Your task to perform on an android device: check data usage Image 0: 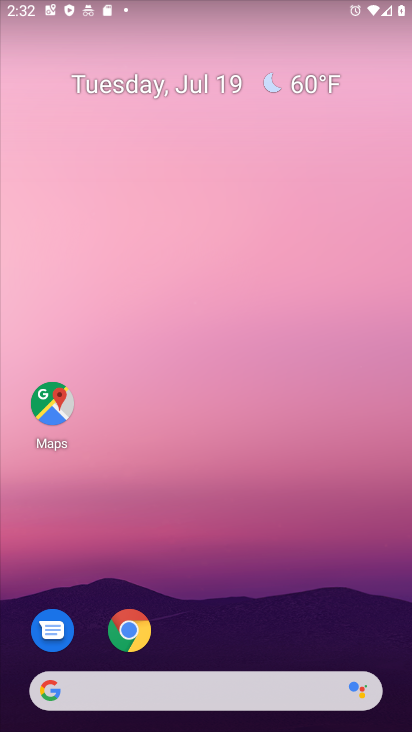
Step 0: click (177, 155)
Your task to perform on an android device: check data usage Image 1: 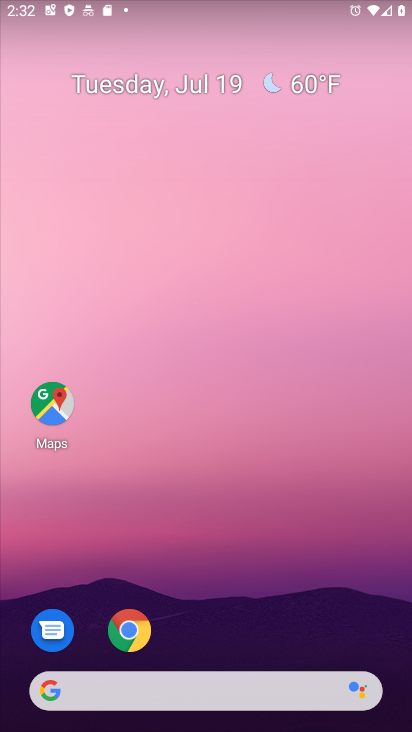
Step 1: drag from (246, 648) to (158, 85)
Your task to perform on an android device: check data usage Image 2: 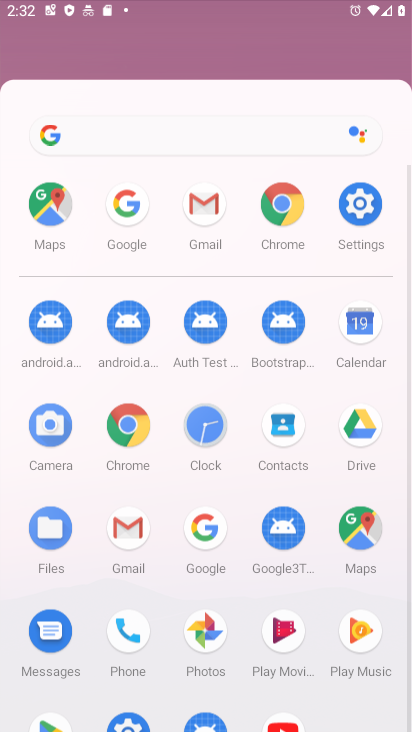
Step 2: drag from (240, 541) to (222, 69)
Your task to perform on an android device: check data usage Image 3: 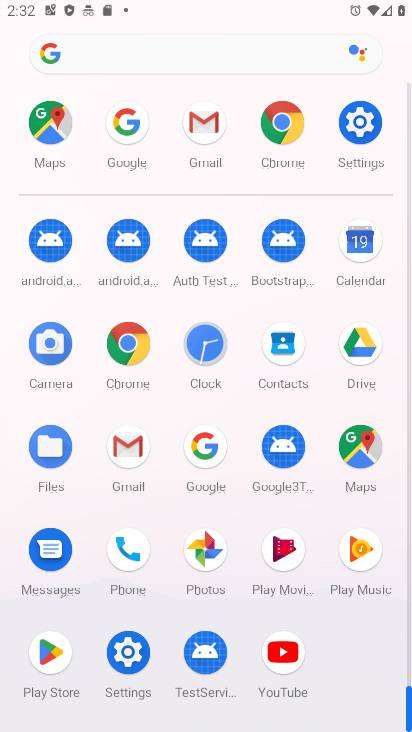
Step 3: click (358, 119)
Your task to perform on an android device: check data usage Image 4: 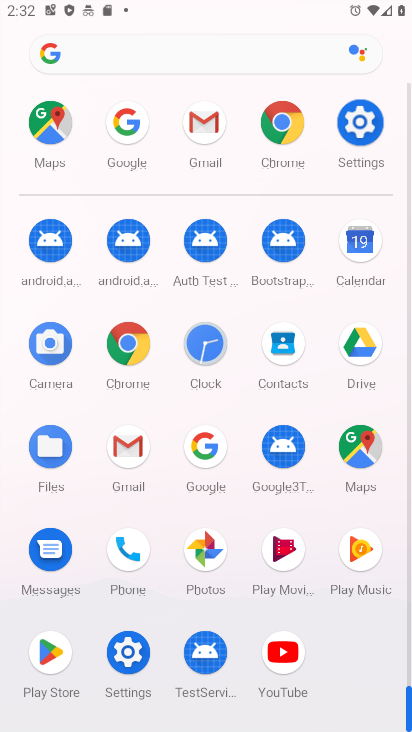
Step 4: click (358, 119)
Your task to perform on an android device: check data usage Image 5: 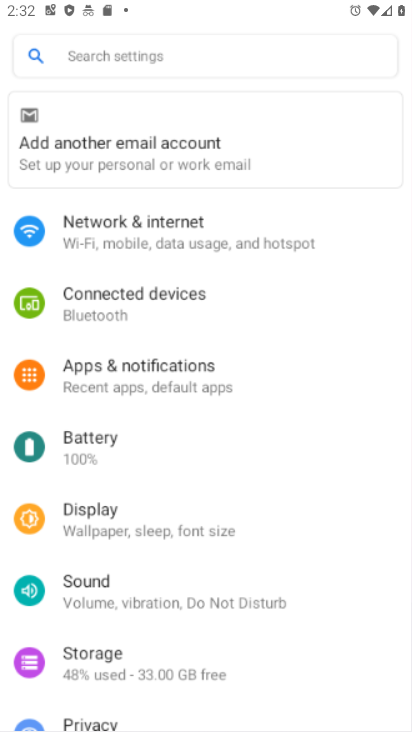
Step 5: click (358, 119)
Your task to perform on an android device: check data usage Image 6: 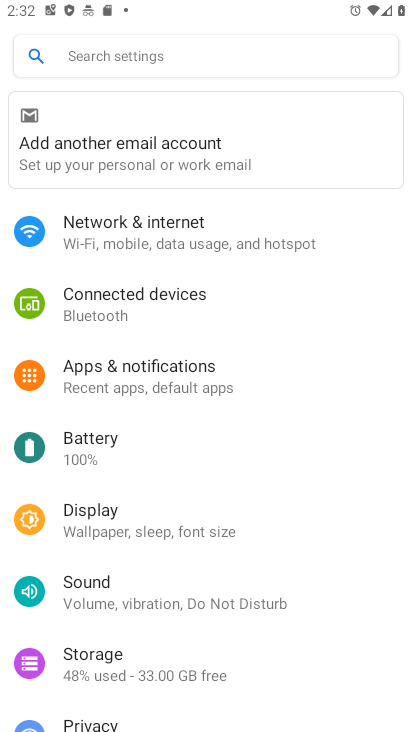
Step 6: drag from (127, 570) to (114, 228)
Your task to perform on an android device: check data usage Image 7: 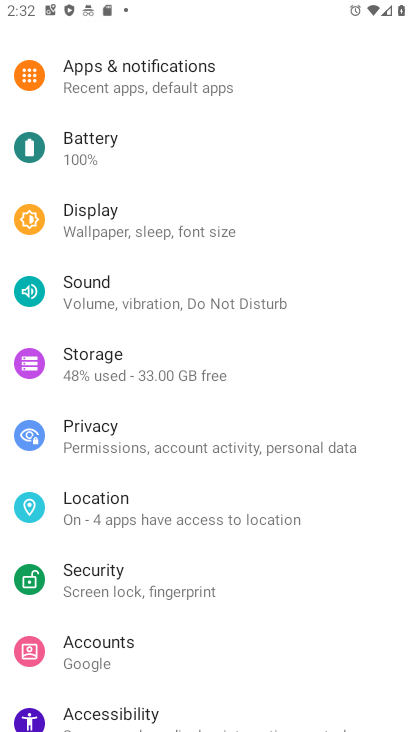
Step 7: drag from (175, 588) to (115, 220)
Your task to perform on an android device: check data usage Image 8: 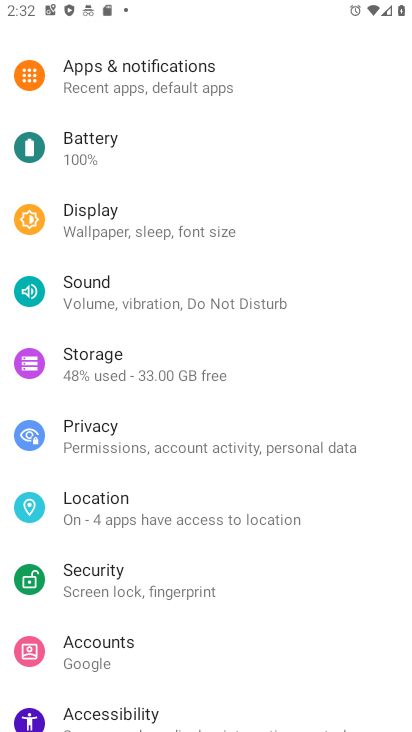
Step 8: drag from (190, 443) to (223, 209)
Your task to perform on an android device: check data usage Image 9: 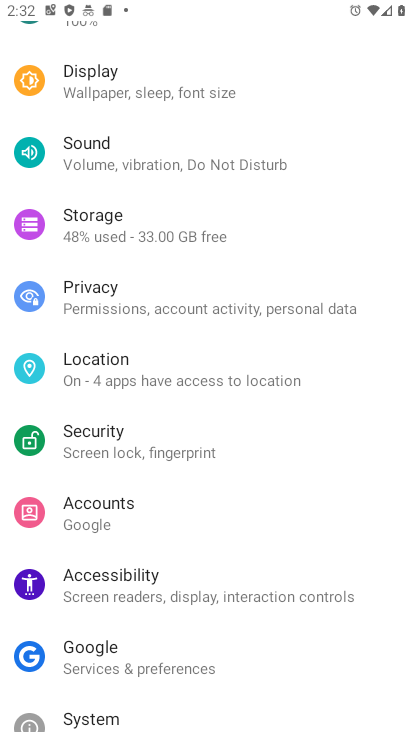
Step 9: drag from (104, 127) to (174, 532)
Your task to perform on an android device: check data usage Image 10: 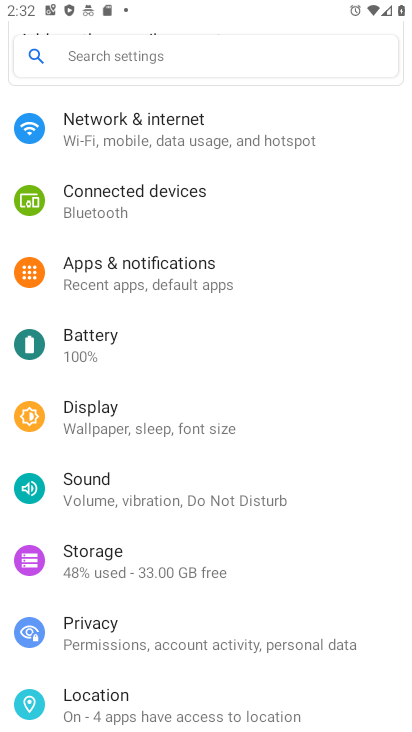
Step 10: drag from (165, 177) to (188, 408)
Your task to perform on an android device: check data usage Image 11: 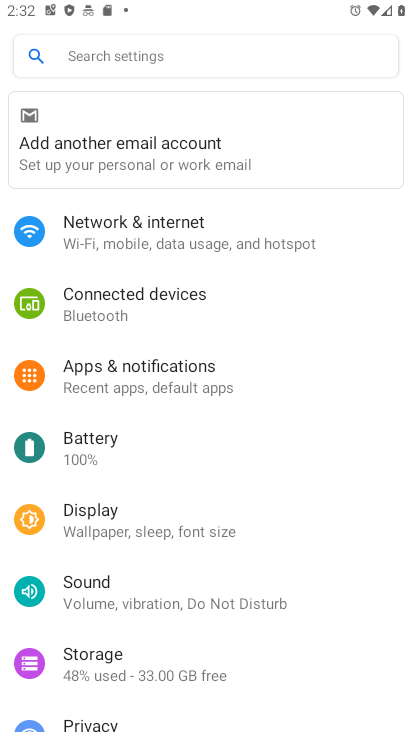
Step 11: drag from (118, 592) to (134, 304)
Your task to perform on an android device: check data usage Image 12: 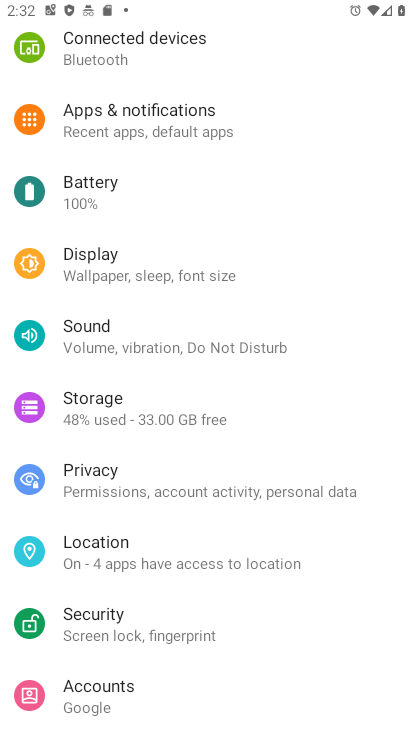
Step 12: drag from (160, 449) to (136, 248)
Your task to perform on an android device: check data usage Image 13: 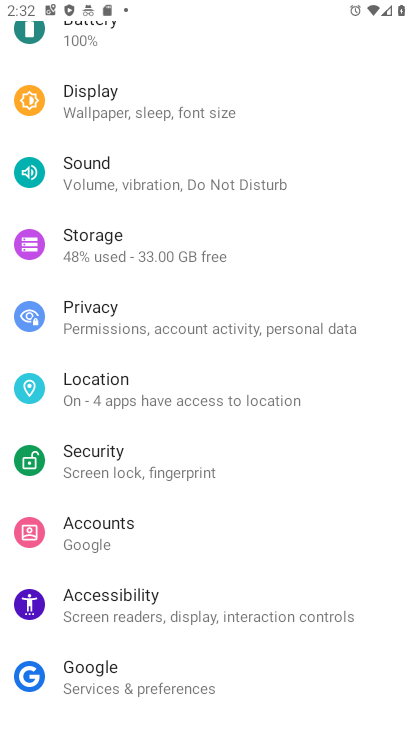
Step 13: drag from (115, 191) to (125, 394)
Your task to perform on an android device: check data usage Image 14: 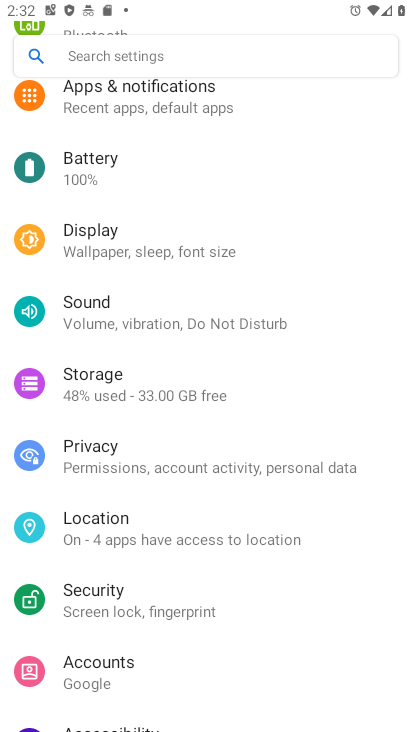
Step 14: drag from (126, 205) to (153, 354)
Your task to perform on an android device: check data usage Image 15: 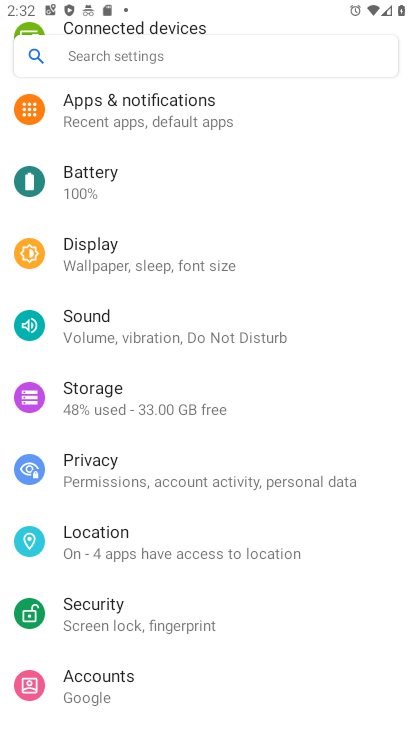
Step 15: drag from (164, 157) to (170, 333)
Your task to perform on an android device: check data usage Image 16: 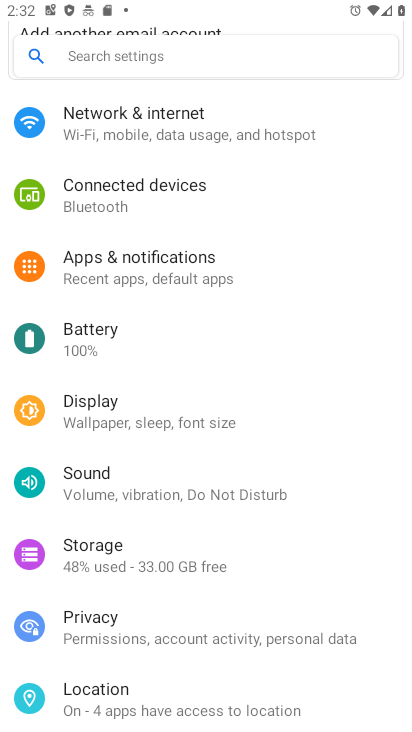
Step 16: click (138, 109)
Your task to perform on an android device: check data usage Image 17: 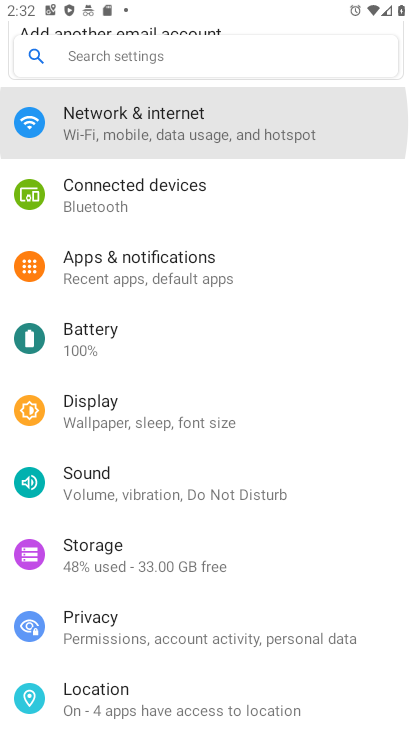
Step 17: click (145, 106)
Your task to perform on an android device: check data usage Image 18: 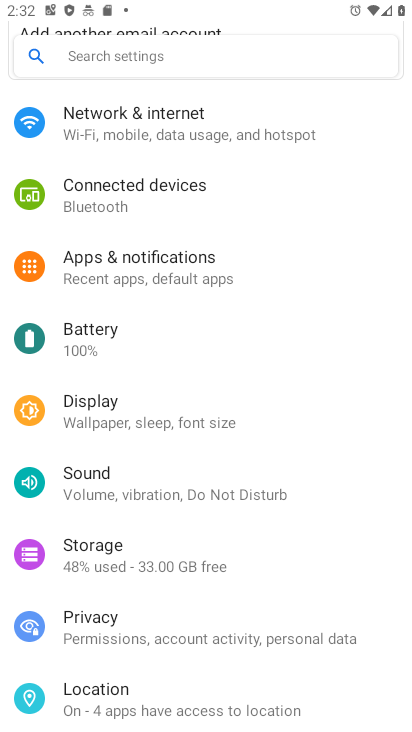
Step 18: click (163, 111)
Your task to perform on an android device: check data usage Image 19: 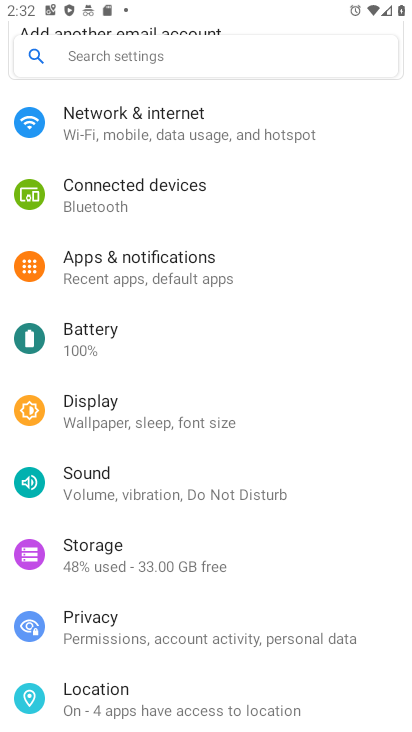
Step 19: click (164, 112)
Your task to perform on an android device: check data usage Image 20: 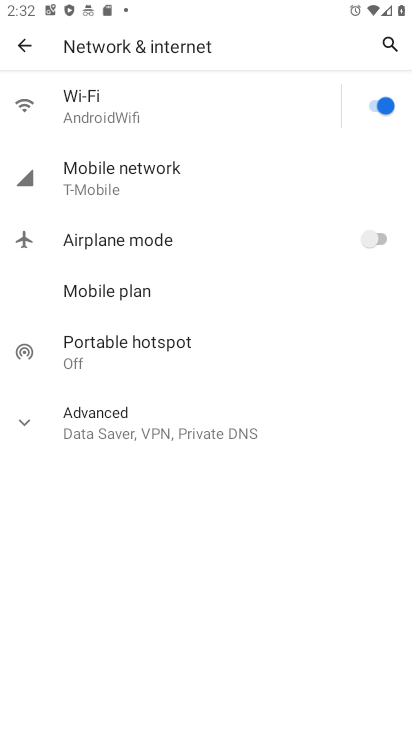
Step 20: click (104, 179)
Your task to perform on an android device: check data usage Image 21: 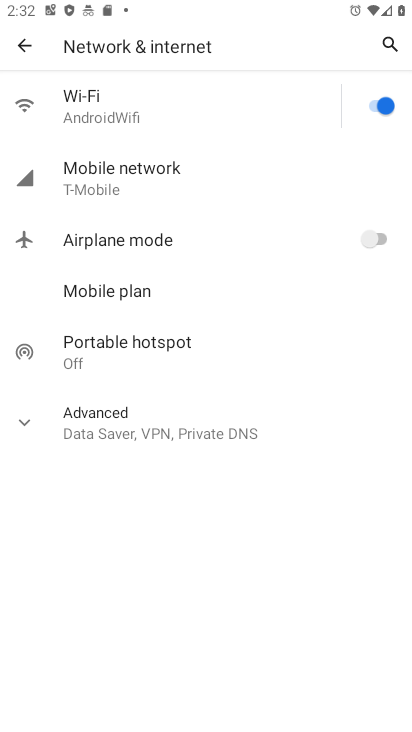
Step 21: click (103, 178)
Your task to perform on an android device: check data usage Image 22: 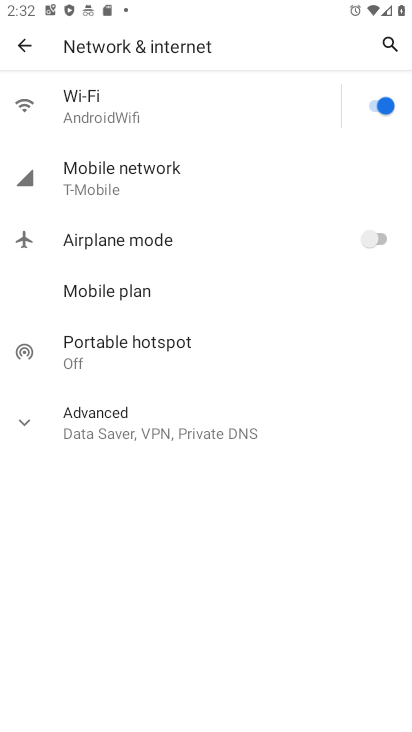
Step 22: click (102, 177)
Your task to perform on an android device: check data usage Image 23: 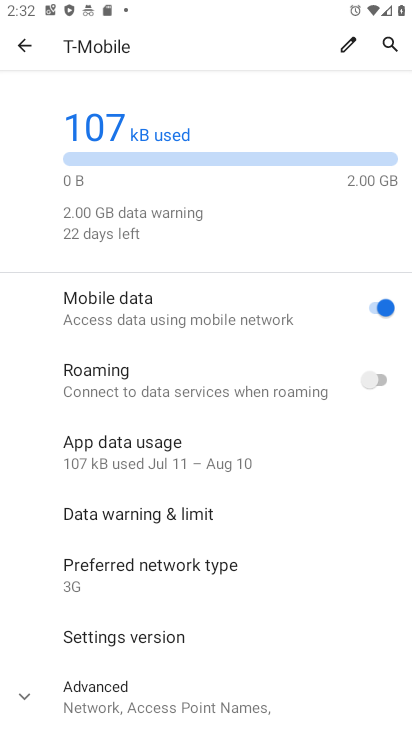
Step 23: task complete